Your task to perform on an android device: delete a single message in the gmail app Image 0: 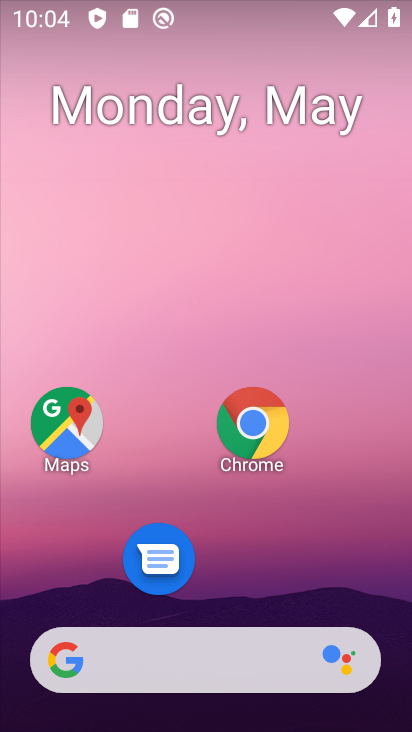
Step 0: drag from (200, 620) to (279, 170)
Your task to perform on an android device: delete a single message in the gmail app Image 1: 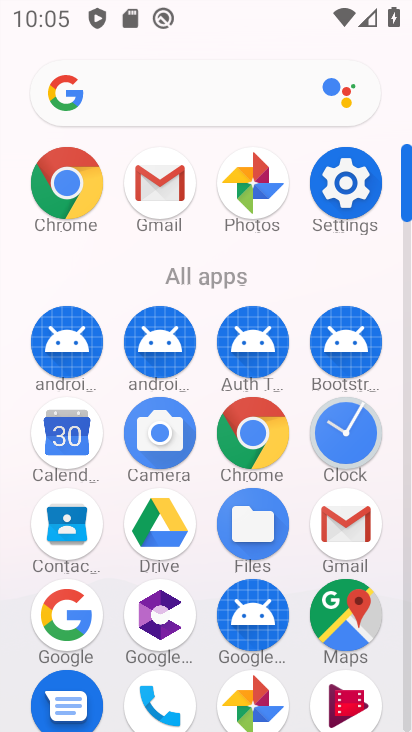
Step 1: click (159, 196)
Your task to perform on an android device: delete a single message in the gmail app Image 2: 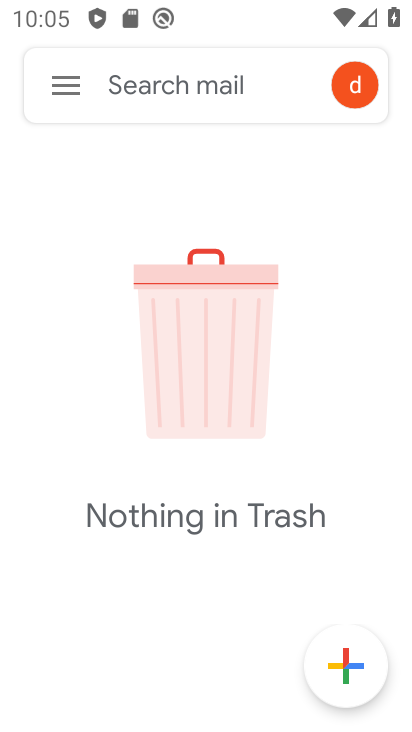
Step 2: task complete